Your task to perform on an android device: Go to CNN.com Image 0: 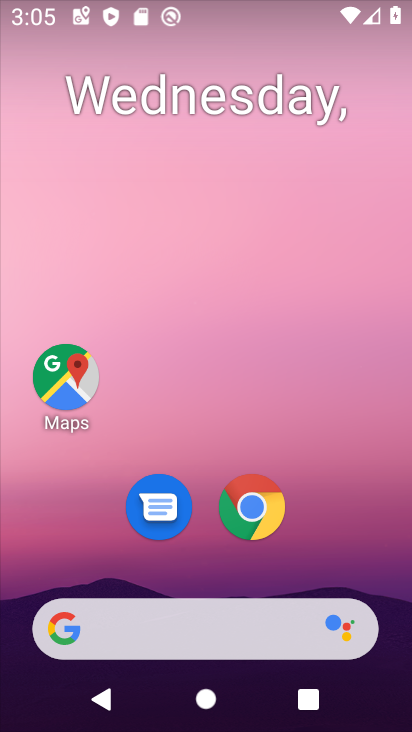
Step 0: click (127, 638)
Your task to perform on an android device: Go to CNN.com Image 1: 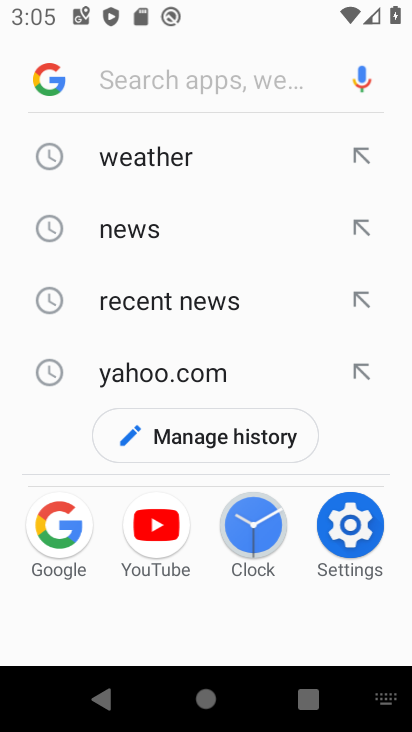
Step 1: press home button
Your task to perform on an android device: Go to CNN.com Image 2: 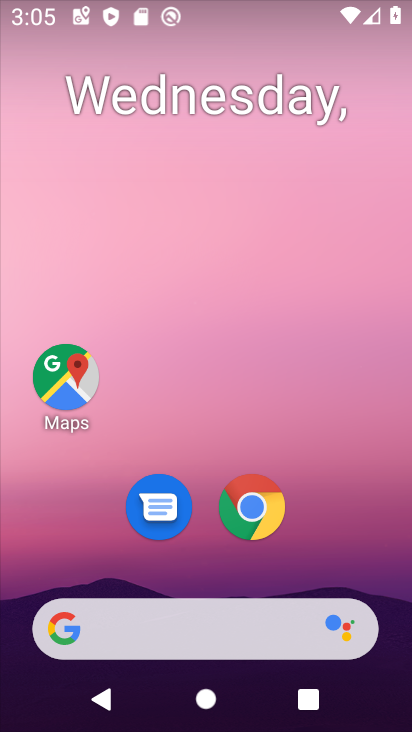
Step 2: click (259, 509)
Your task to perform on an android device: Go to CNN.com Image 3: 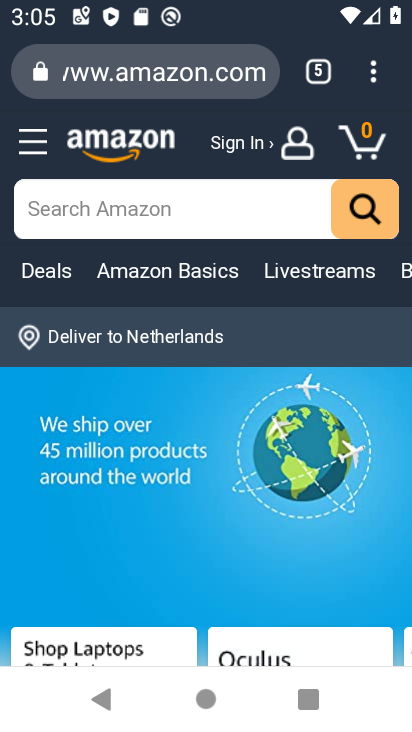
Step 3: click (308, 84)
Your task to perform on an android device: Go to CNN.com Image 4: 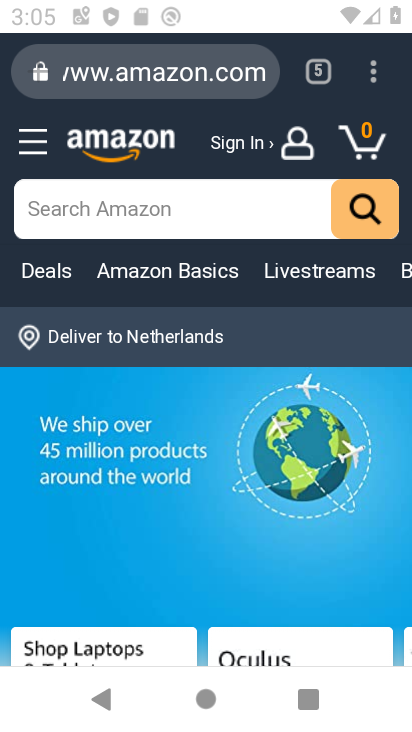
Step 4: click (308, 84)
Your task to perform on an android device: Go to CNN.com Image 5: 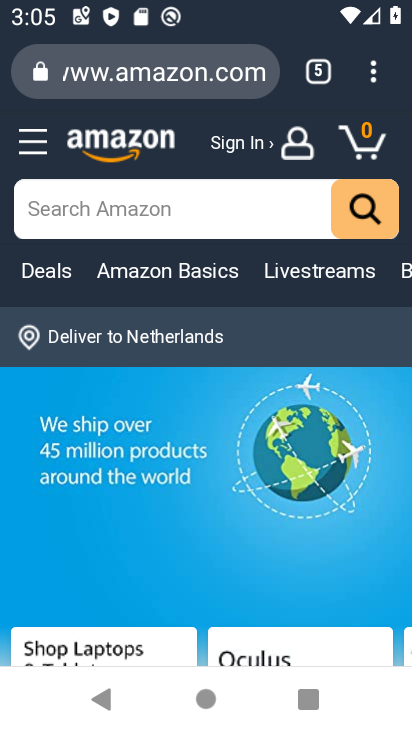
Step 5: click (319, 78)
Your task to perform on an android device: Go to CNN.com Image 6: 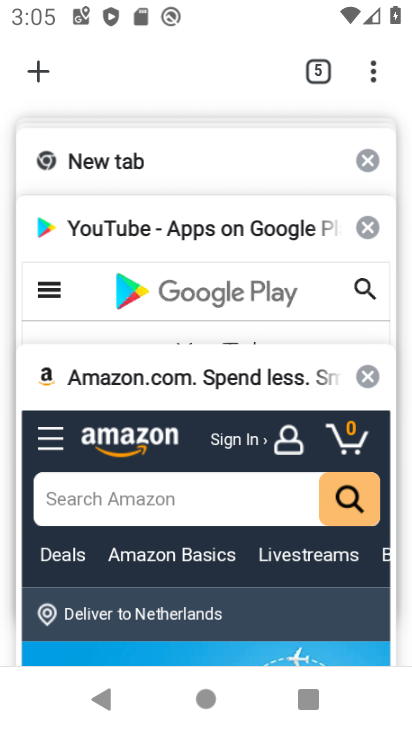
Step 6: drag from (112, 170) to (127, 358)
Your task to perform on an android device: Go to CNN.com Image 7: 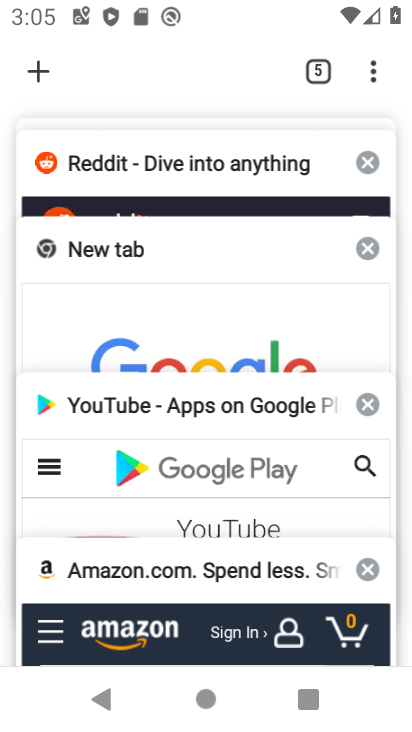
Step 7: drag from (96, 181) to (115, 461)
Your task to perform on an android device: Go to CNN.com Image 8: 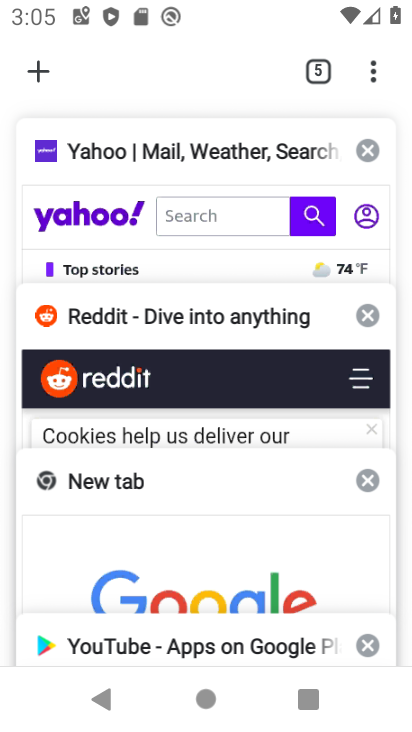
Step 8: drag from (106, 168) to (130, 428)
Your task to perform on an android device: Go to CNN.com Image 9: 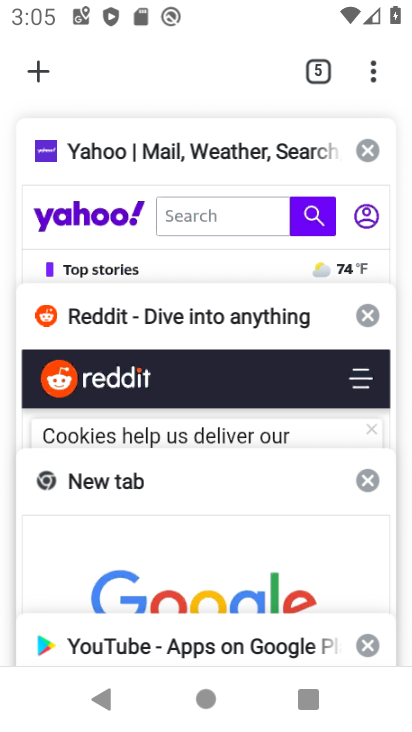
Step 9: click (31, 67)
Your task to perform on an android device: Go to CNN.com Image 10: 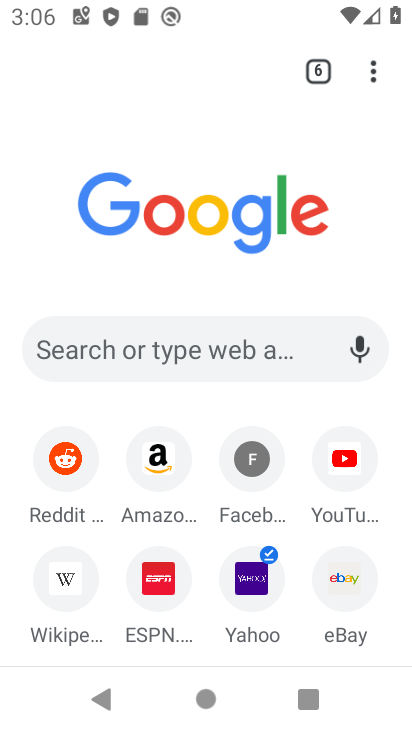
Step 10: drag from (219, 532) to (185, 300)
Your task to perform on an android device: Go to CNN.com Image 11: 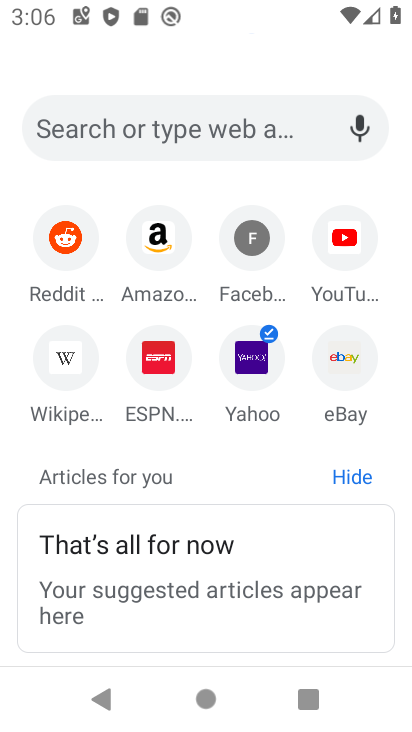
Step 11: click (114, 113)
Your task to perform on an android device: Go to CNN.com Image 12: 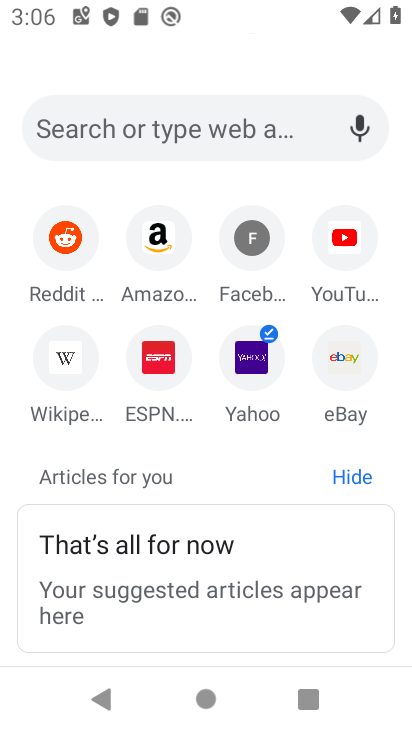
Step 12: click (144, 136)
Your task to perform on an android device: Go to CNN.com Image 13: 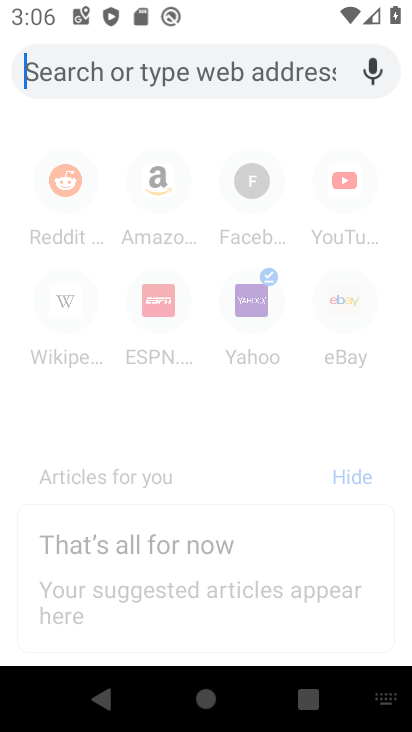
Step 13: type "CNN.com"
Your task to perform on an android device: Go to CNN.com Image 14: 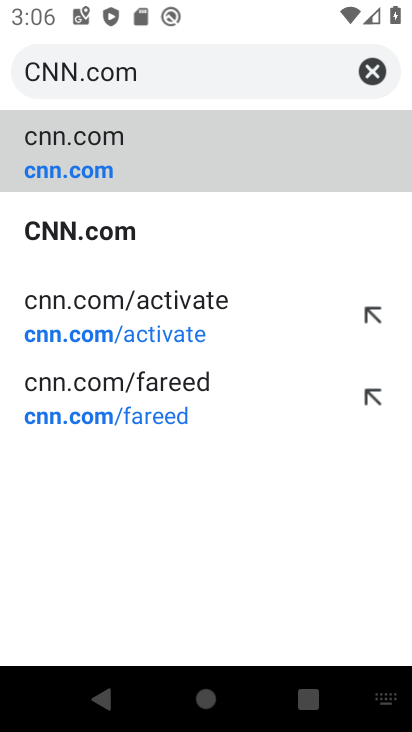
Step 14: click (190, 174)
Your task to perform on an android device: Go to CNN.com Image 15: 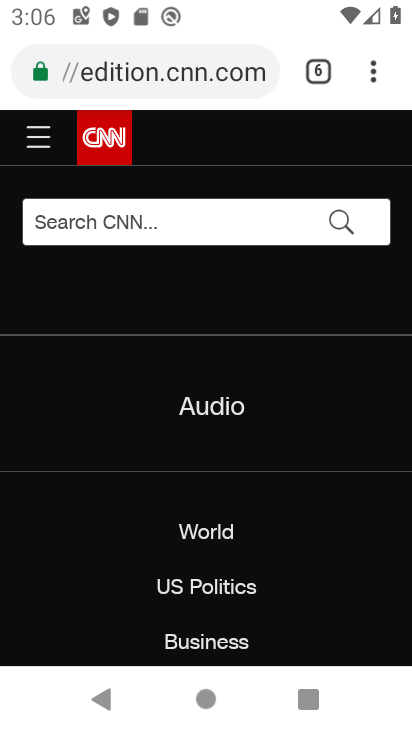
Step 15: task complete